Your task to perform on an android device: Search for the best vacuum on Walmart Image 0: 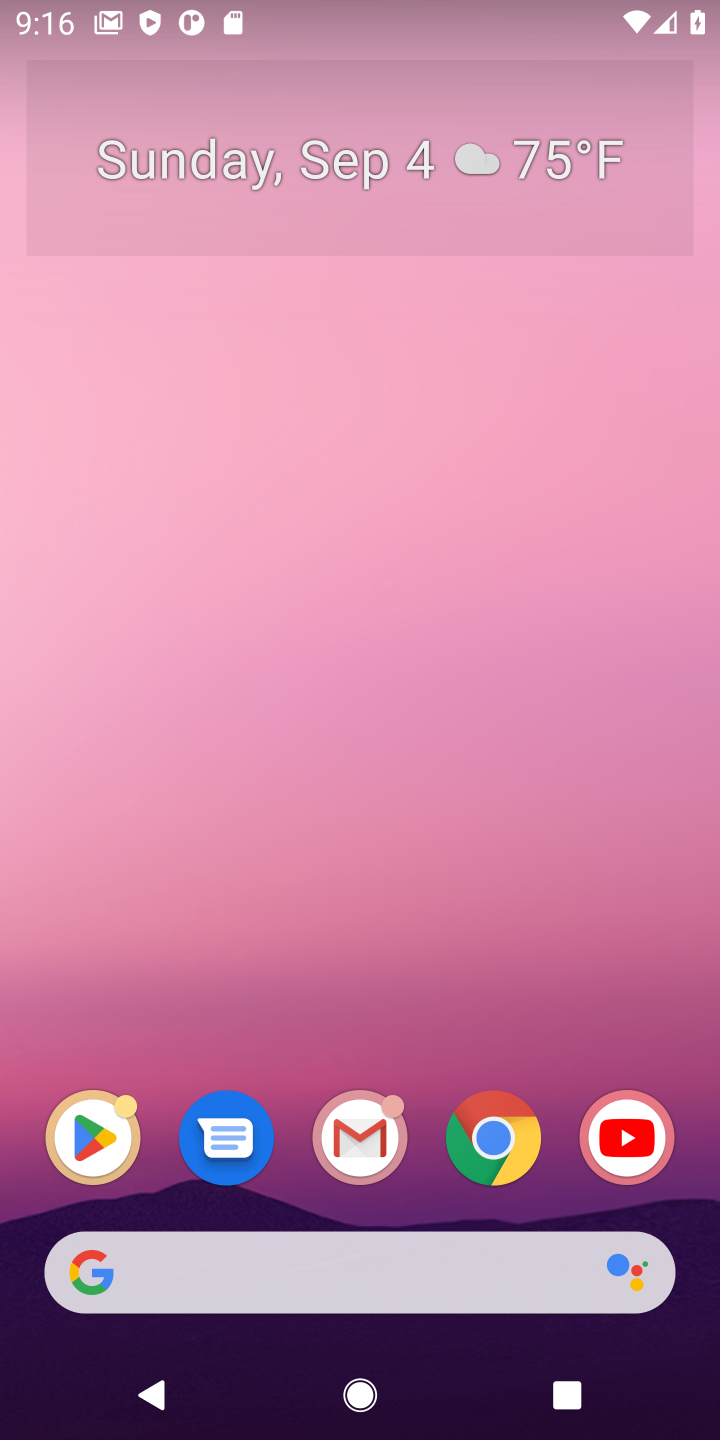
Step 0: click (485, 1129)
Your task to perform on an android device: Search for the best vacuum on Walmart Image 1: 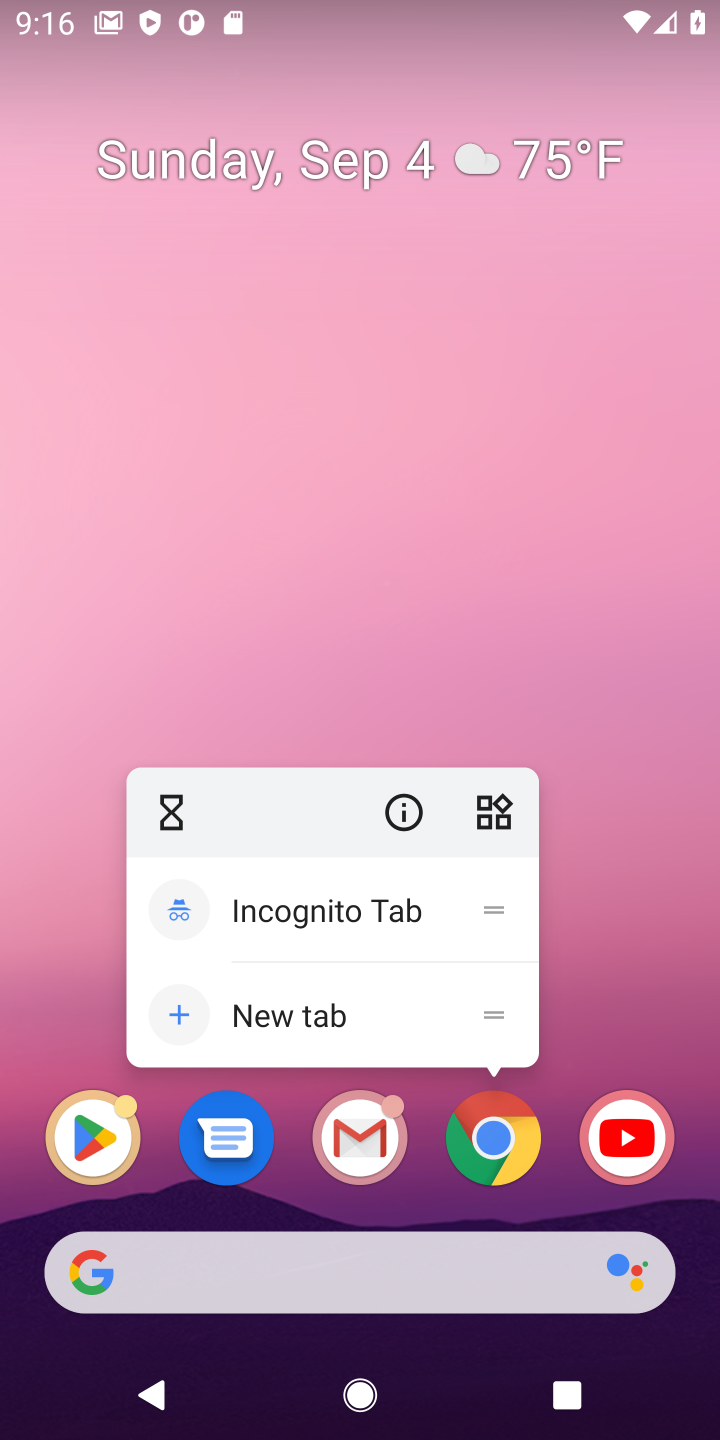
Step 1: click (485, 1129)
Your task to perform on an android device: Search for the best vacuum on Walmart Image 2: 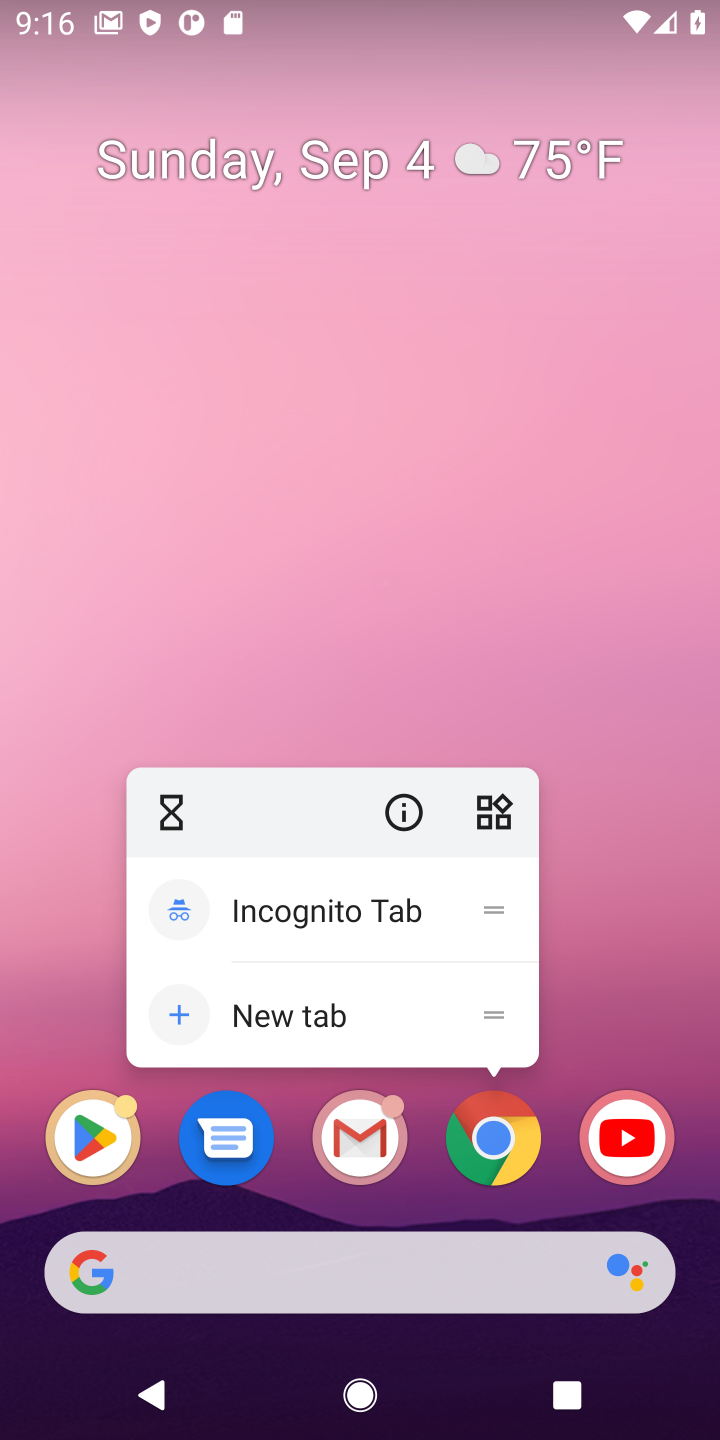
Step 2: click (485, 1129)
Your task to perform on an android device: Search for the best vacuum on Walmart Image 3: 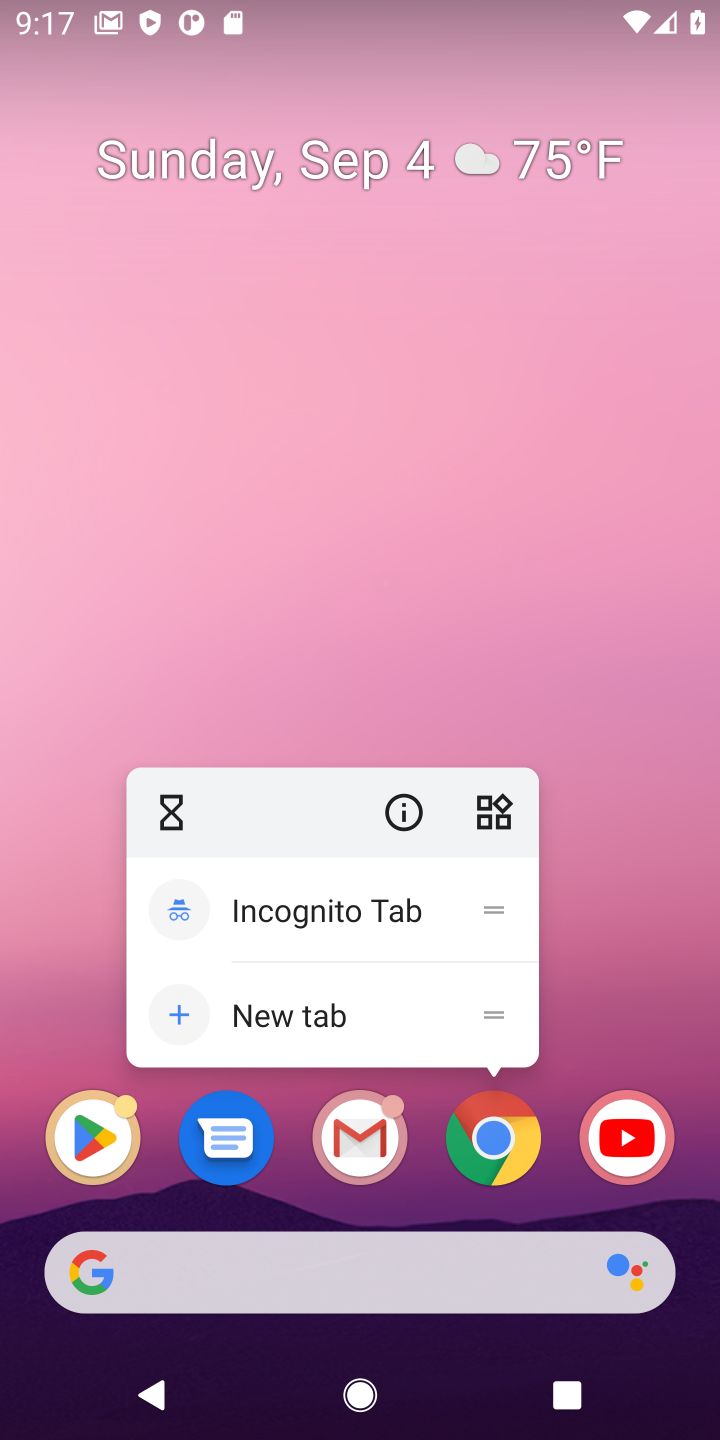
Step 3: click (464, 1145)
Your task to perform on an android device: Search for the best vacuum on Walmart Image 4: 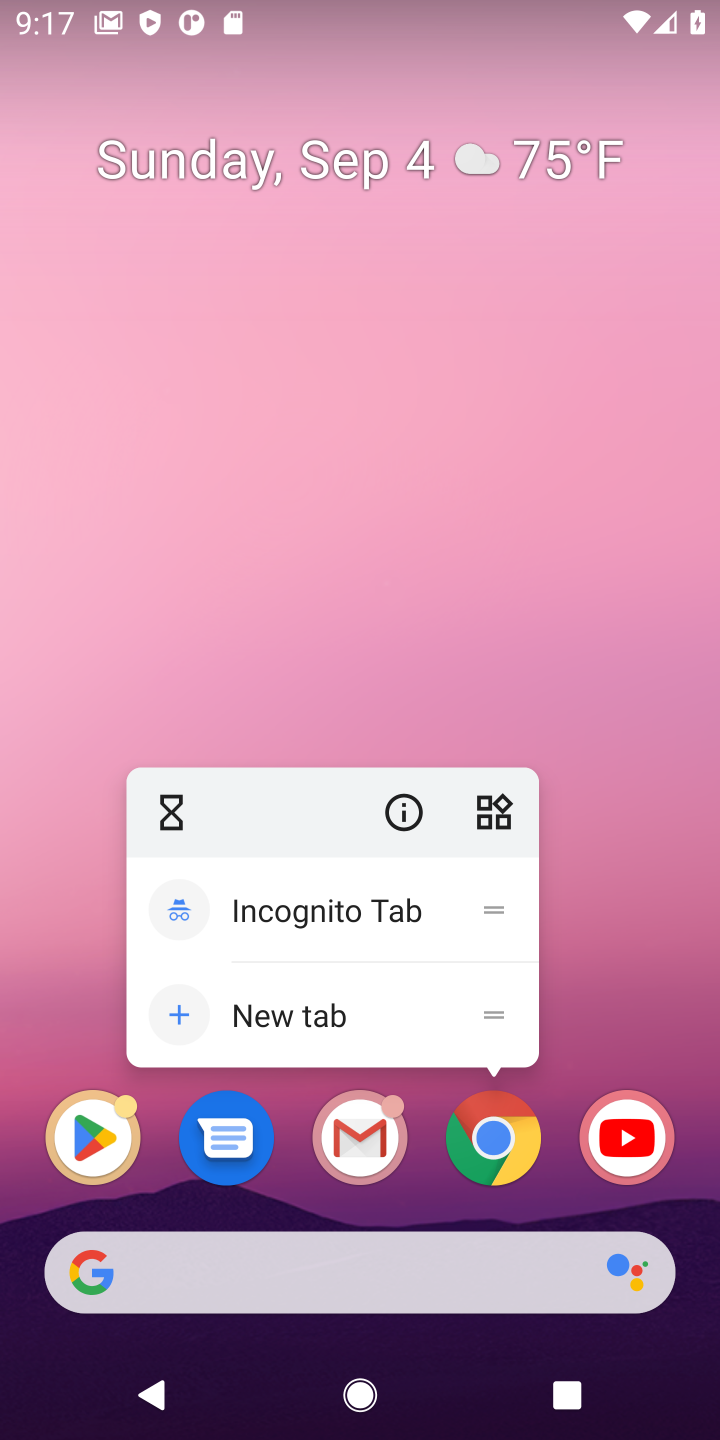
Step 4: click (495, 1121)
Your task to perform on an android device: Search for the best vacuum on Walmart Image 5: 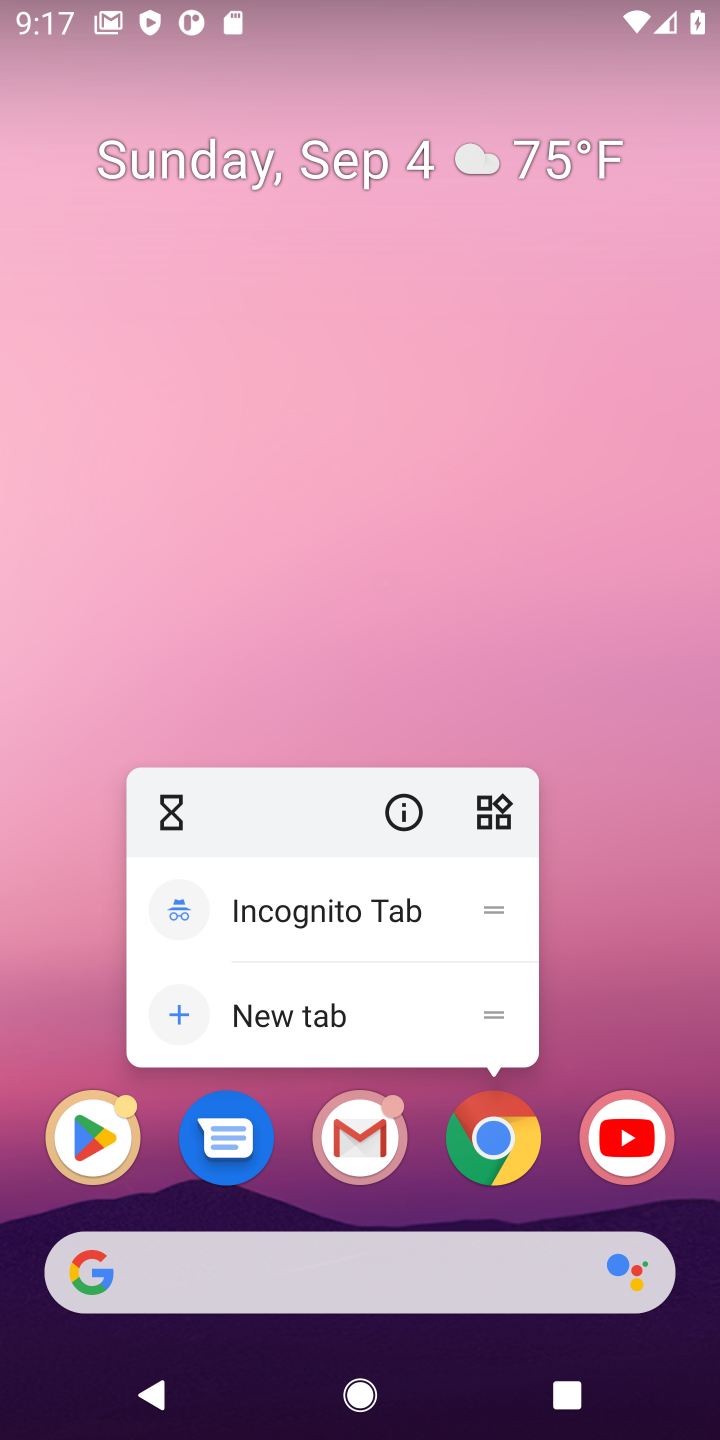
Step 5: click (495, 1121)
Your task to perform on an android device: Search for the best vacuum on Walmart Image 6: 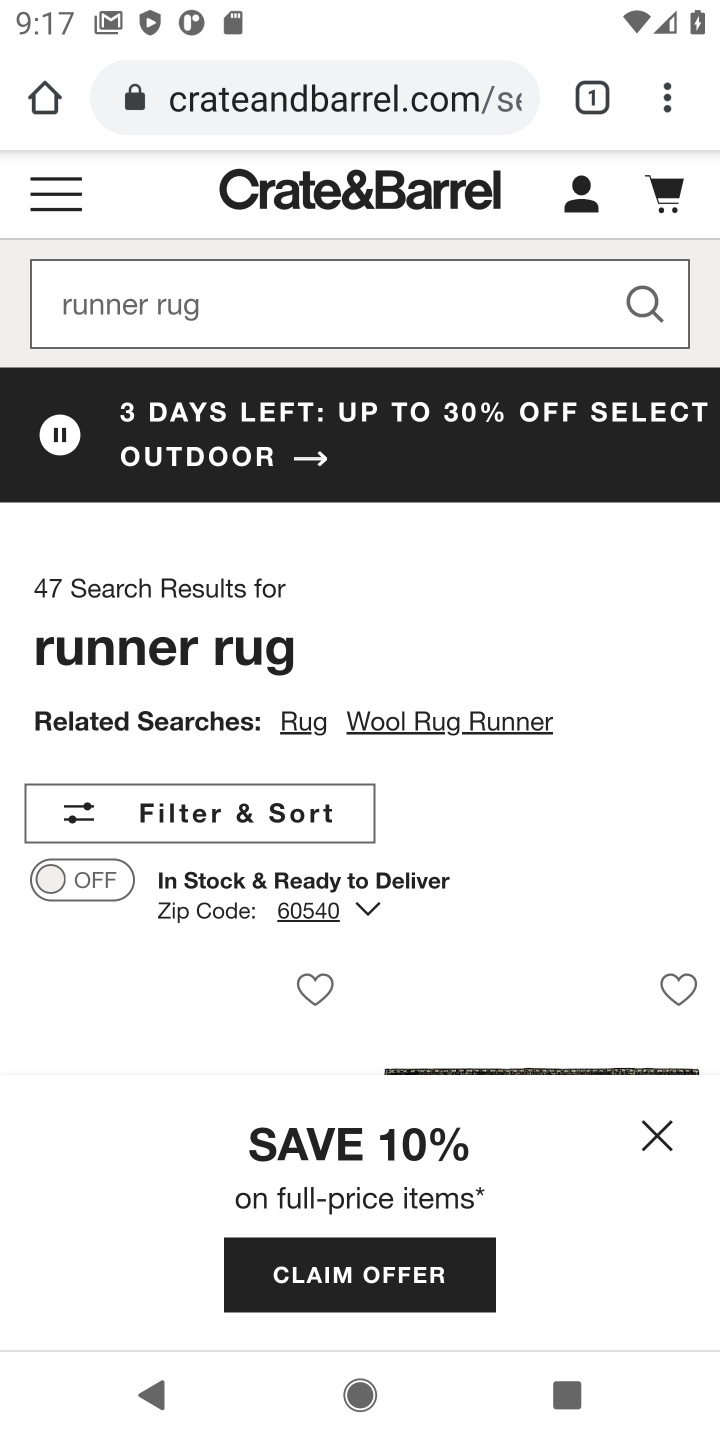
Step 6: click (454, 87)
Your task to perform on an android device: Search for the best vacuum on Walmart Image 7: 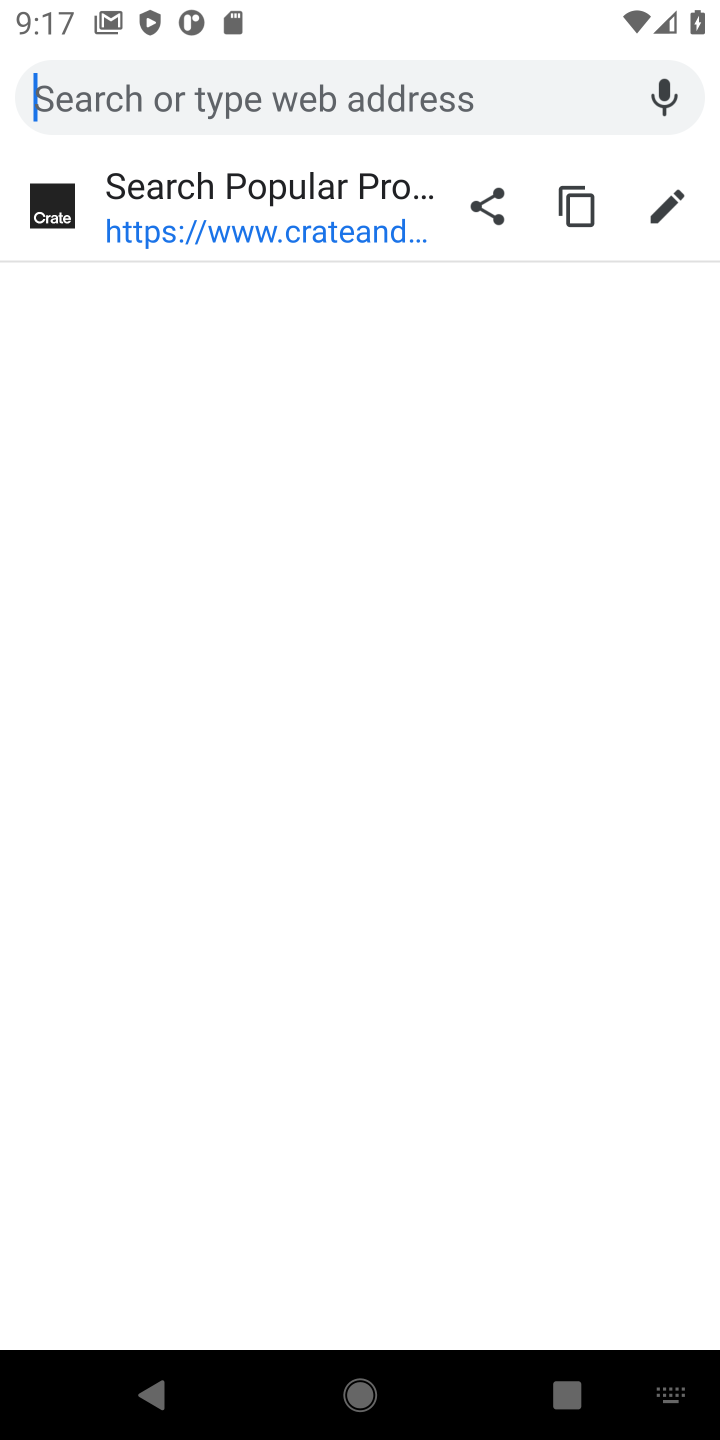
Step 7: type "walmart"
Your task to perform on an android device: Search for the best vacuum on Walmart Image 8: 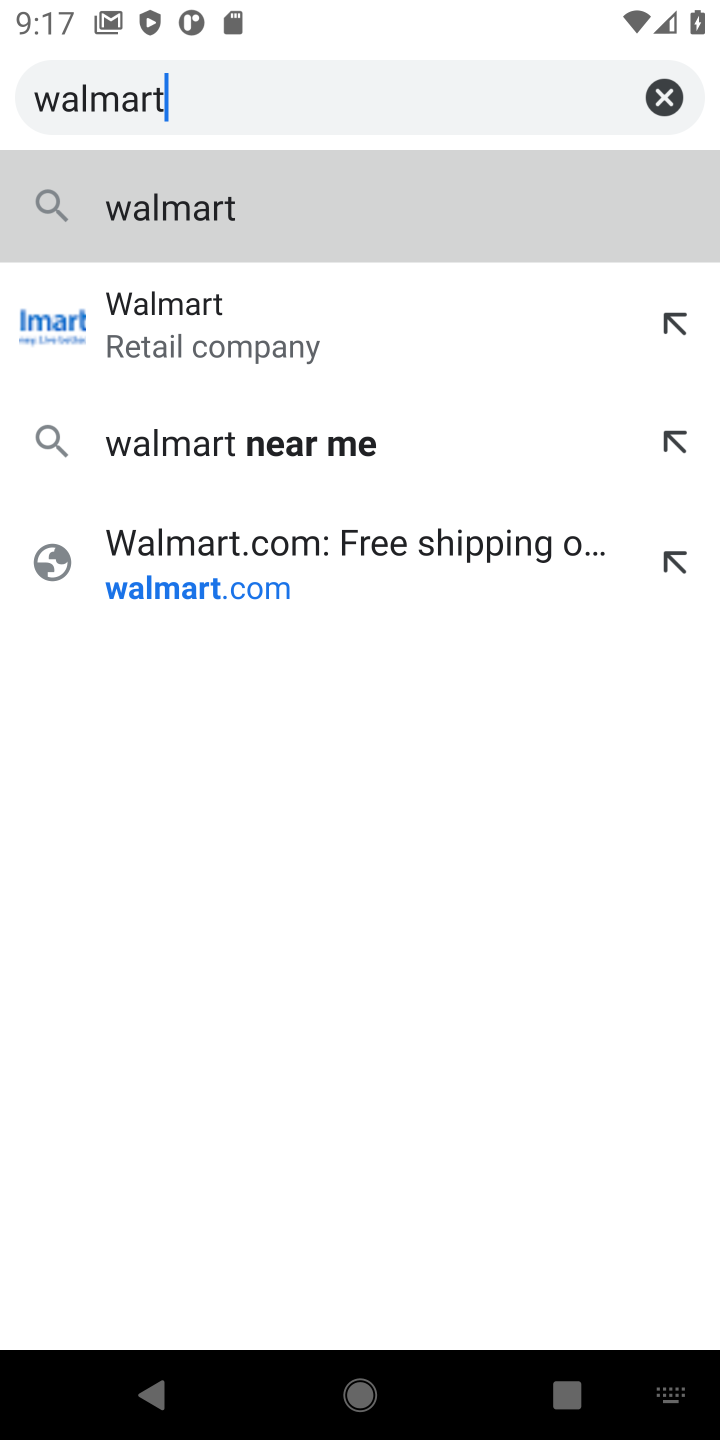
Step 8: click (530, 537)
Your task to perform on an android device: Search for the best vacuum on Walmart Image 9: 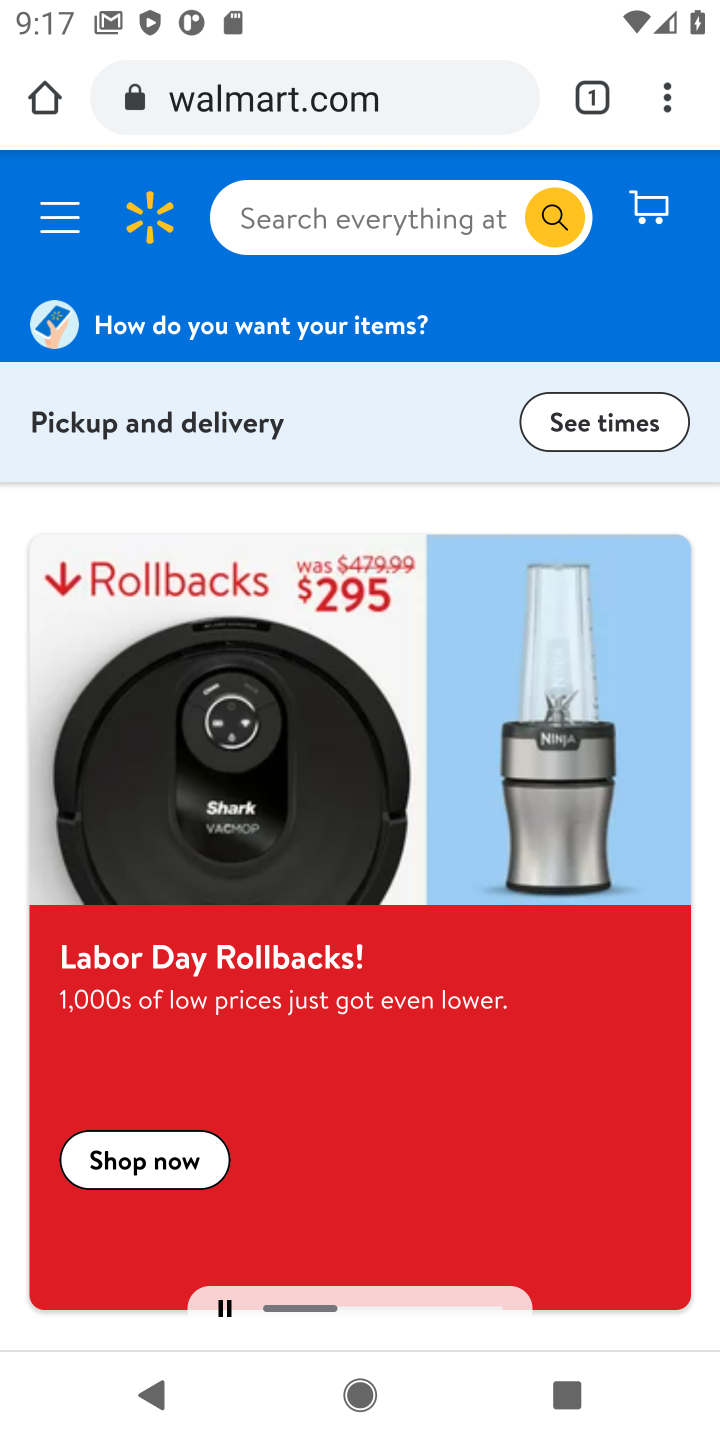
Step 9: click (470, 230)
Your task to perform on an android device: Search for the best vacuum on Walmart Image 10: 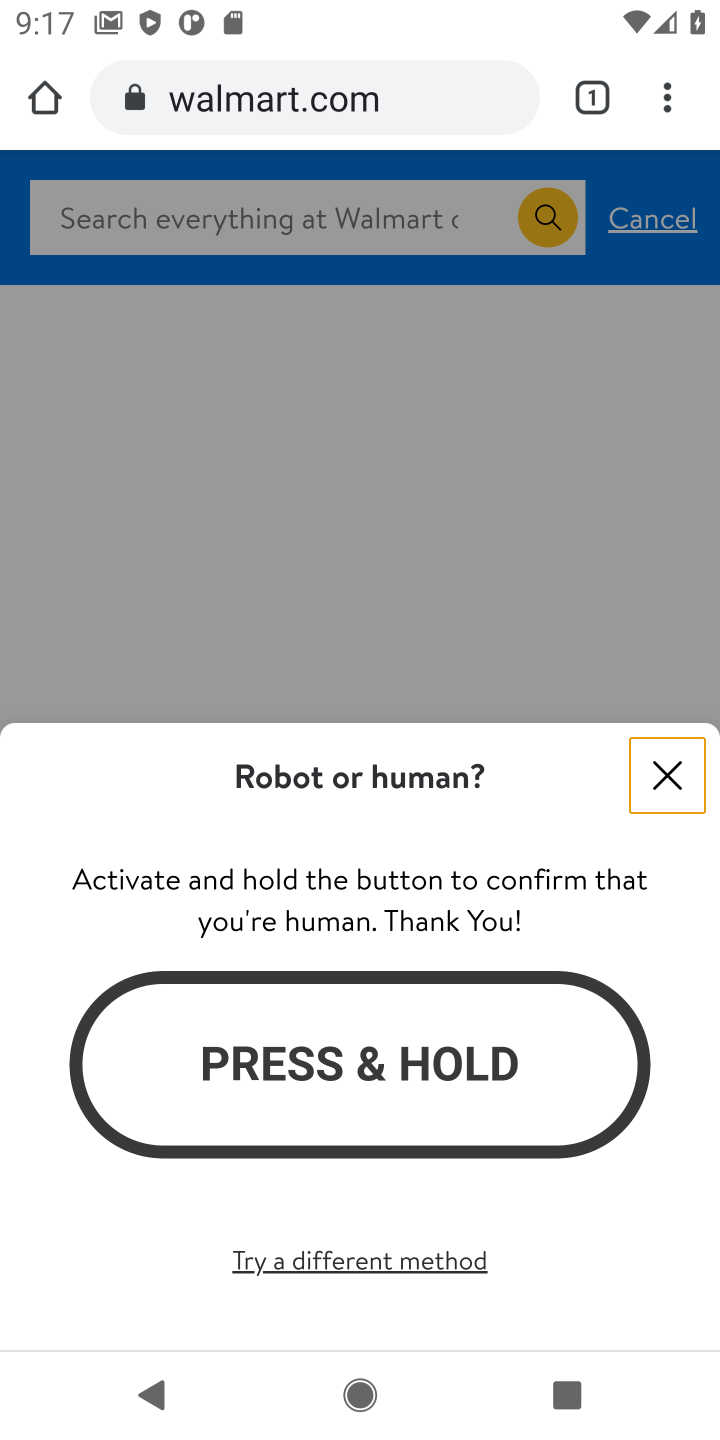
Step 10: click (416, 1022)
Your task to perform on an android device: Search for the best vacuum on Walmart Image 11: 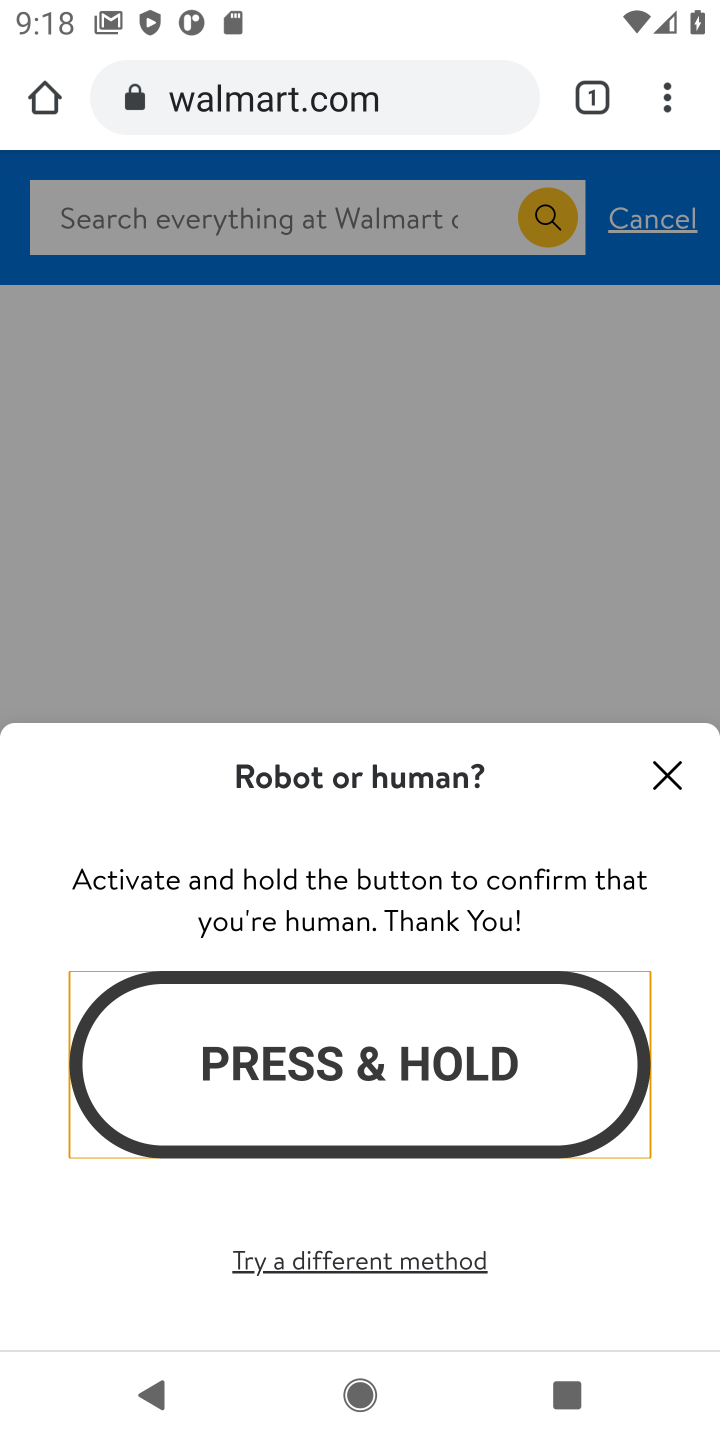
Step 11: click (295, 1122)
Your task to perform on an android device: Search for the best vacuum on Walmart Image 12: 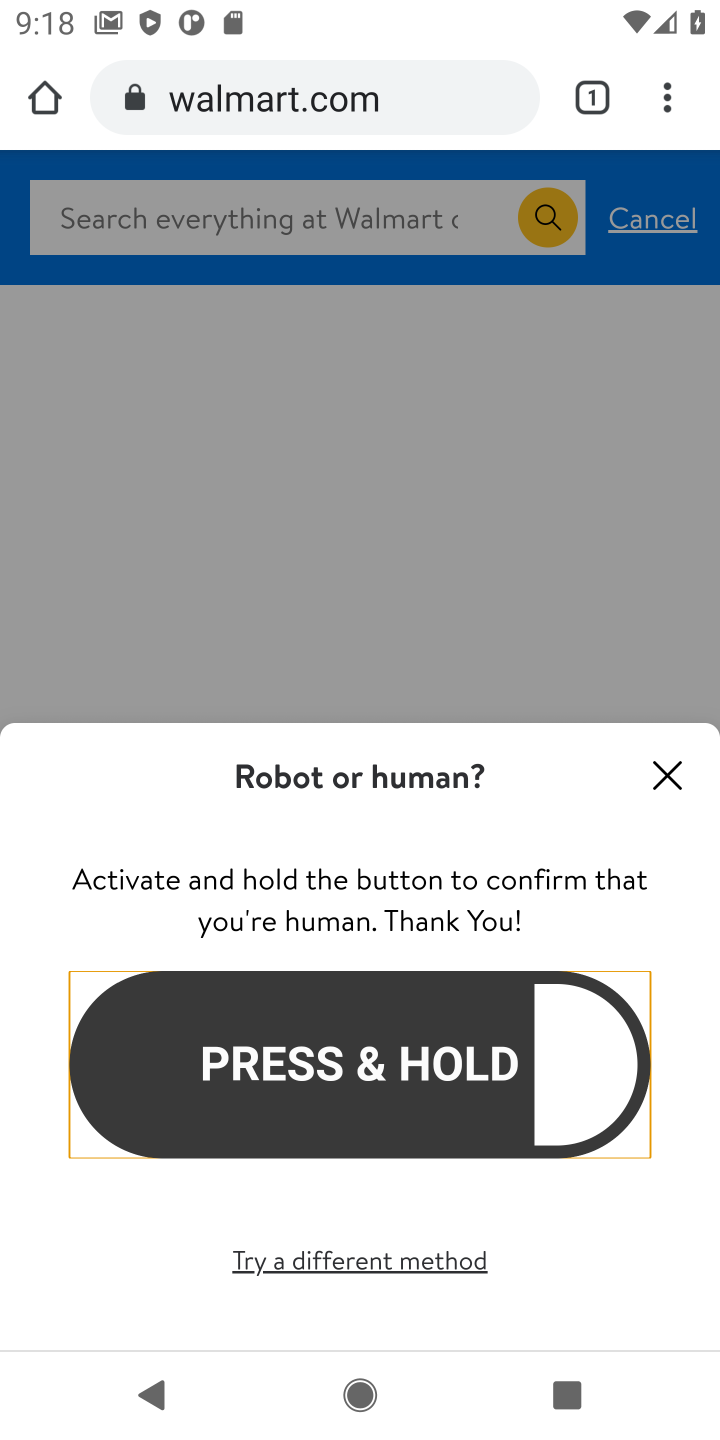
Step 12: click (295, 1122)
Your task to perform on an android device: Search for the best vacuum on Walmart Image 13: 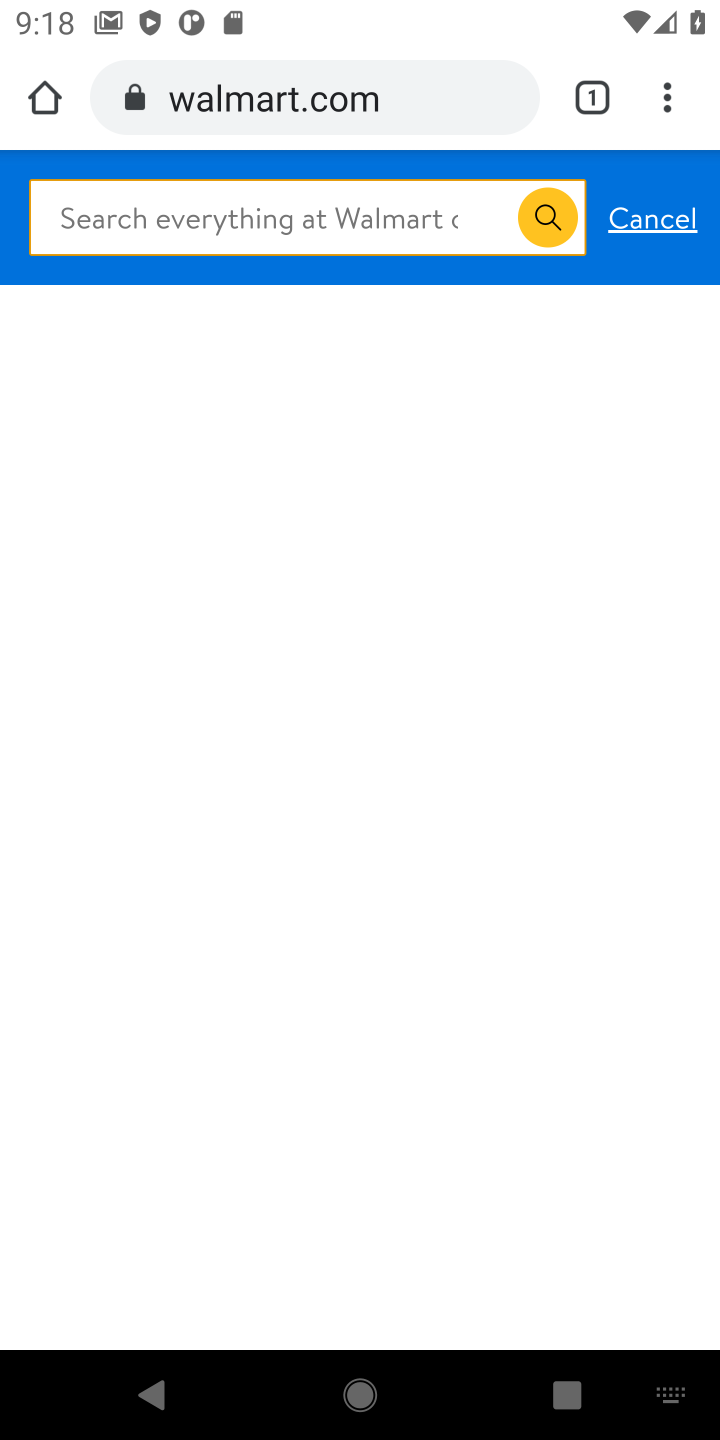
Step 13: type "best vacuum"
Your task to perform on an android device: Search for the best vacuum on Walmart Image 14: 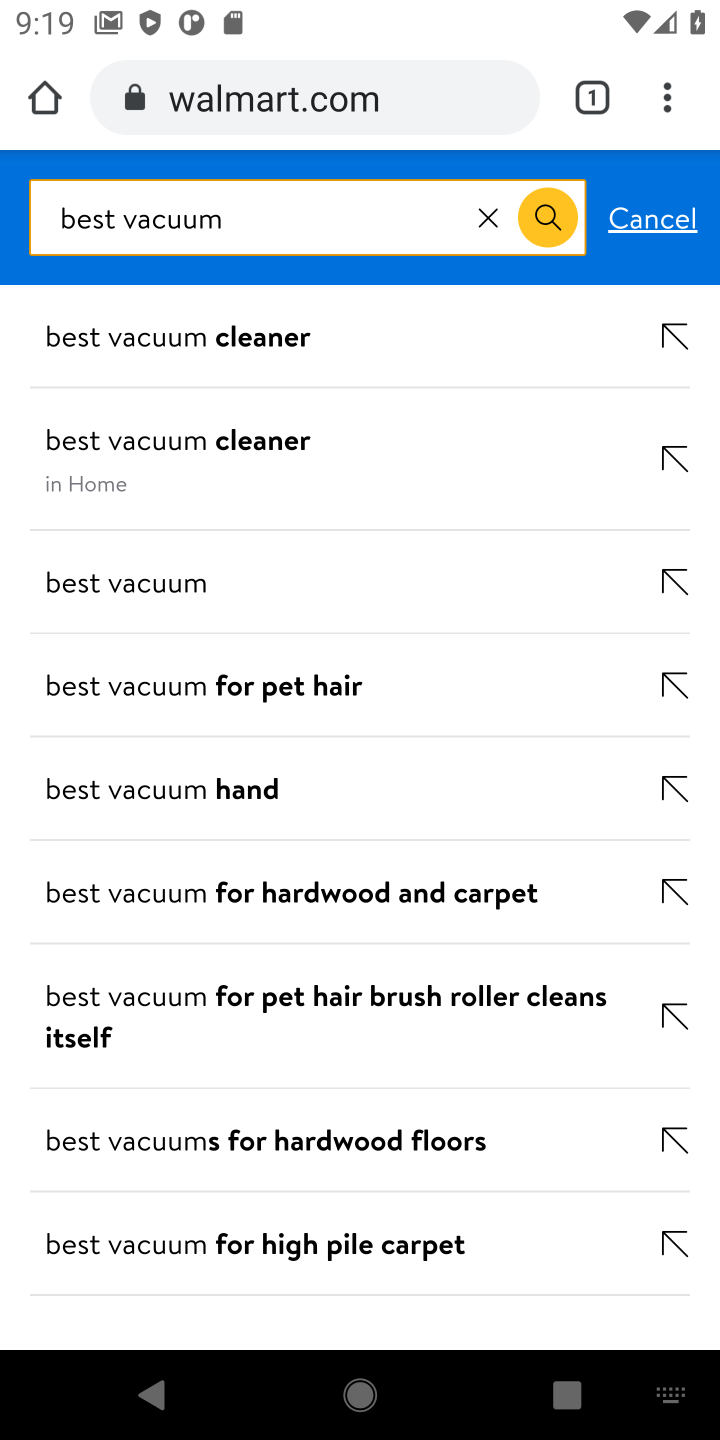
Step 14: click (307, 327)
Your task to perform on an android device: Search for the best vacuum on Walmart Image 15: 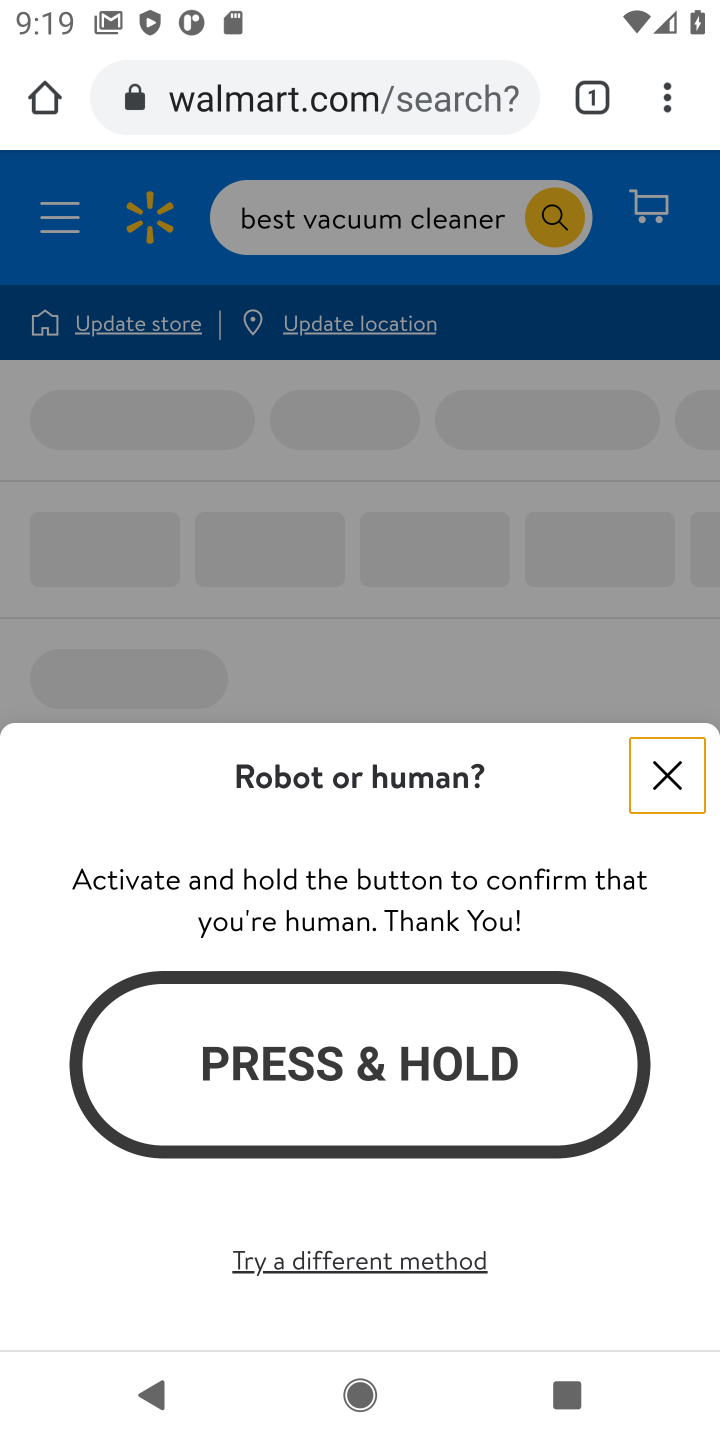
Step 15: click (422, 1018)
Your task to perform on an android device: Search for the best vacuum on Walmart Image 16: 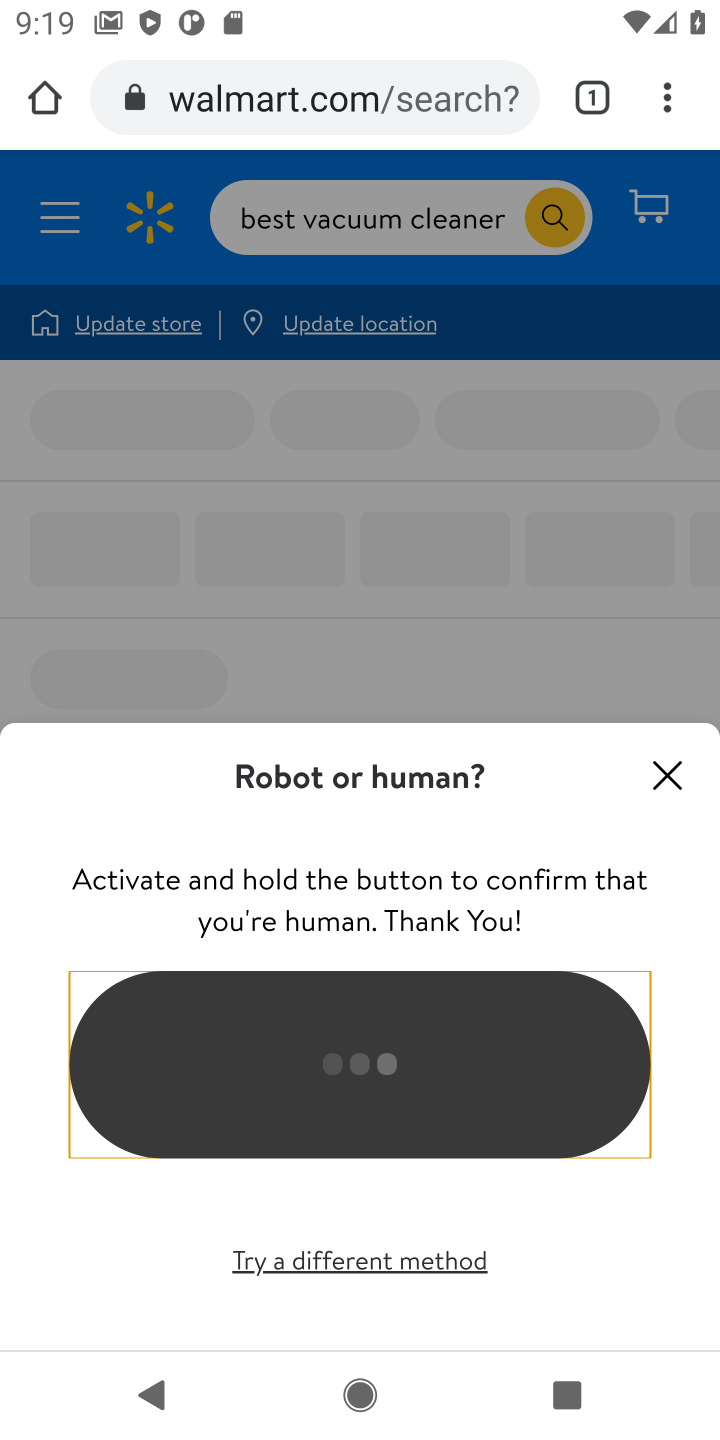
Step 16: task complete